Your task to perform on an android device: turn pop-ups on in chrome Image 0: 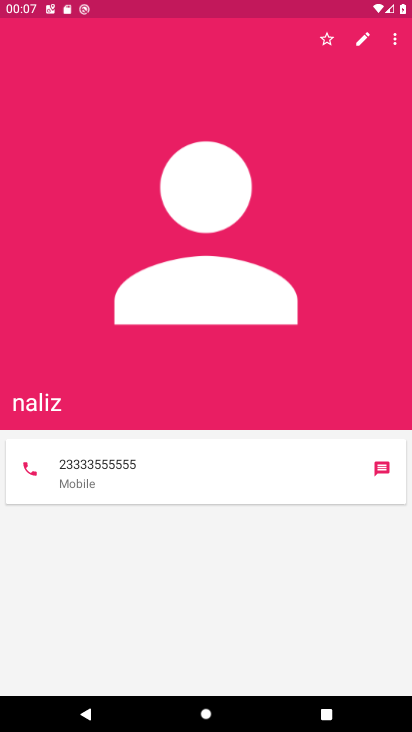
Step 0: press home button
Your task to perform on an android device: turn pop-ups on in chrome Image 1: 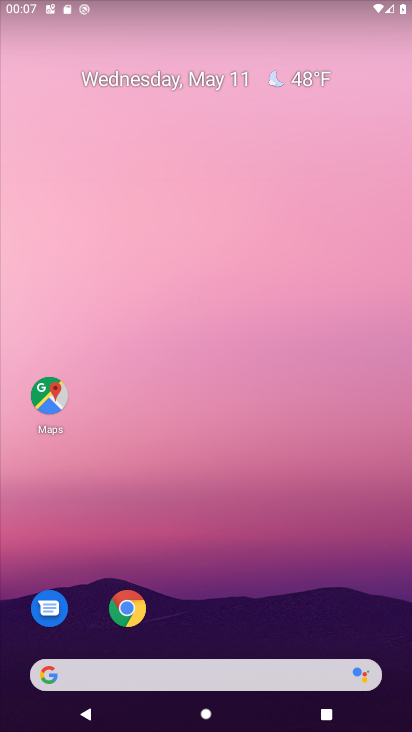
Step 1: click (128, 613)
Your task to perform on an android device: turn pop-ups on in chrome Image 2: 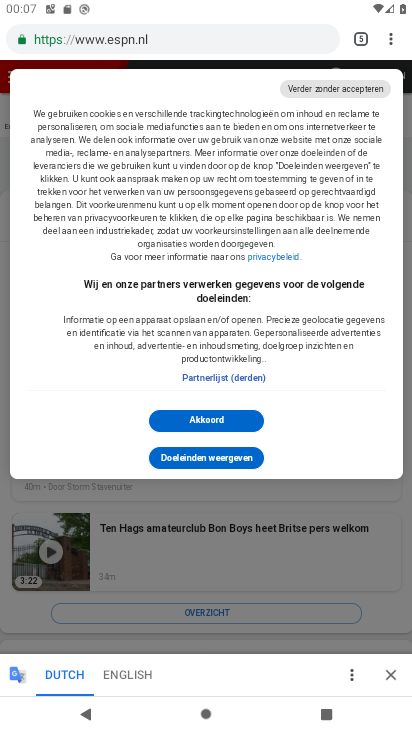
Step 2: click (392, 46)
Your task to perform on an android device: turn pop-ups on in chrome Image 3: 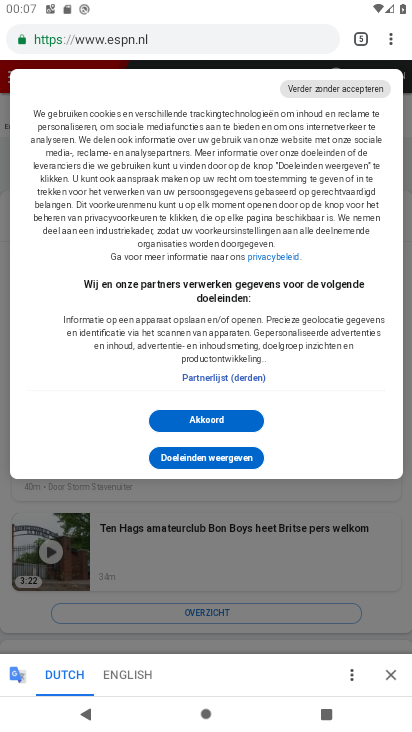
Step 3: click (392, 46)
Your task to perform on an android device: turn pop-ups on in chrome Image 4: 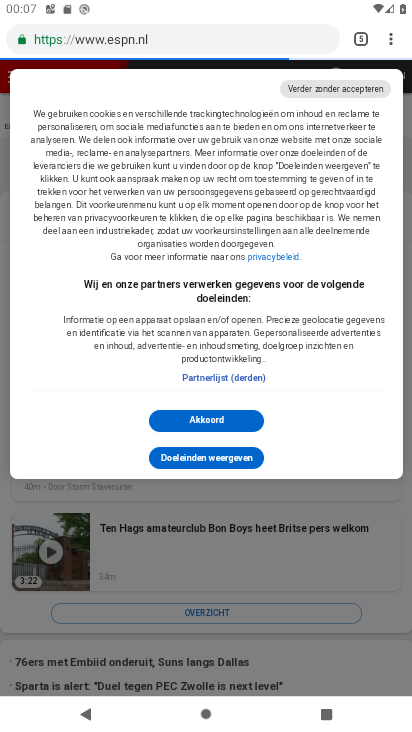
Step 4: click (392, 46)
Your task to perform on an android device: turn pop-ups on in chrome Image 5: 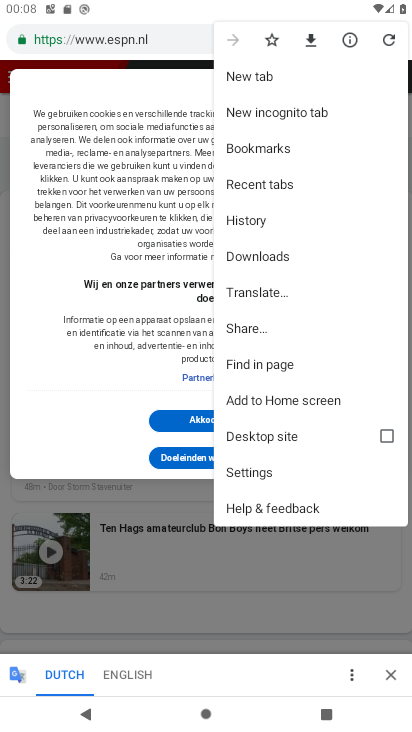
Step 5: click (266, 475)
Your task to perform on an android device: turn pop-ups on in chrome Image 6: 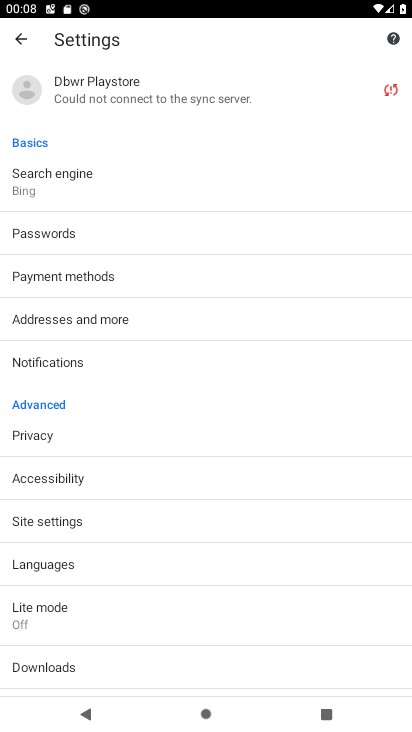
Step 6: click (54, 523)
Your task to perform on an android device: turn pop-ups on in chrome Image 7: 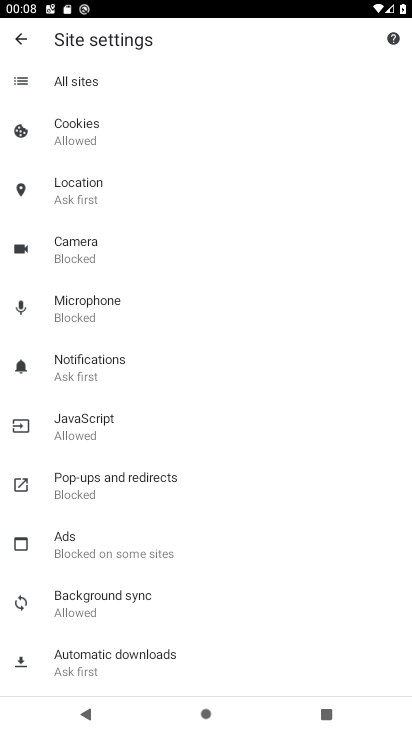
Step 7: click (73, 483)
Your task to perform on an android device: turn pop-ups on in chrome Image 8: 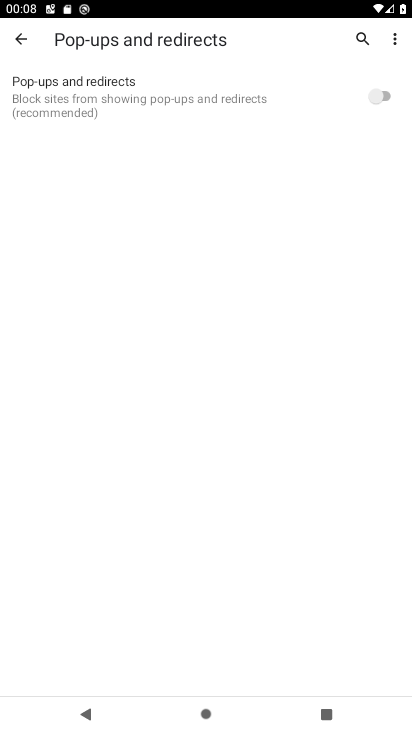
Step 8: click (373, 93)
Your task to perform on an android device: turn pop-ups on in chrome Image 9: 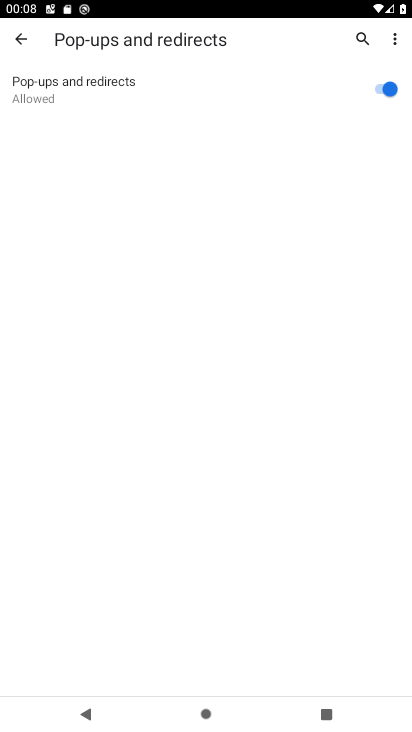
Step 9: task complete